Your task to perform on an android device: turn on priority inbox in the gmail app Image 0: 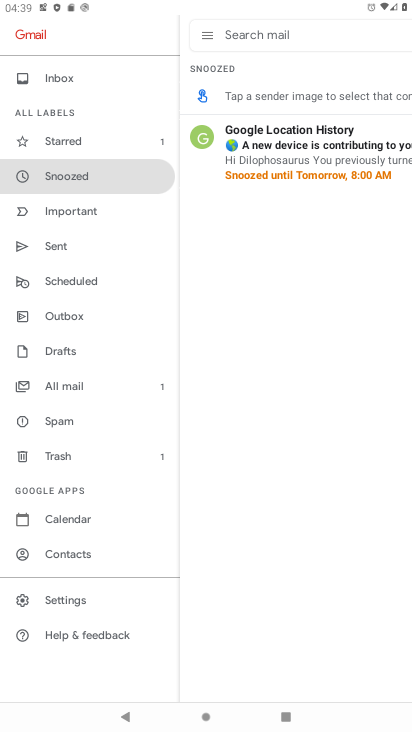
Step 0: click (64, 591)
Your task to perform on an android device: turn on priority inbox in the gmail app Image 1: 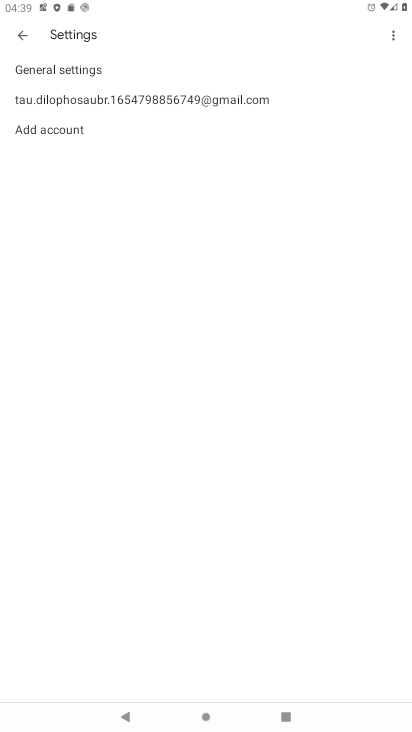
Step 1: click (63, 99)
Your task to perform on an android device: turn on priority inbox in the gmail app Image 2: 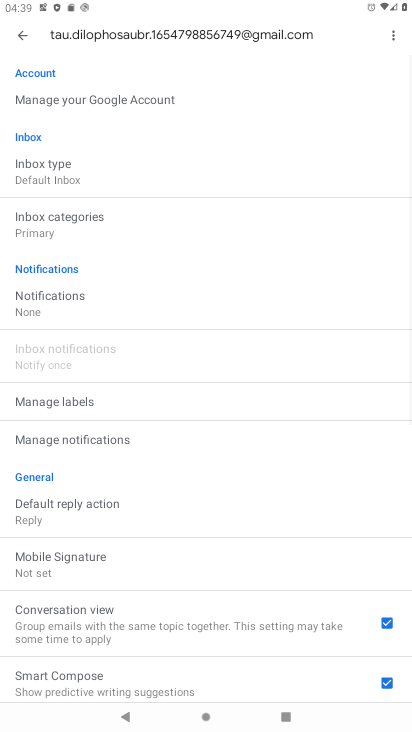
Step 2: click (42, 168)
Your task to perform on an android device: turn on priority inbox in the gmail app Image 3: 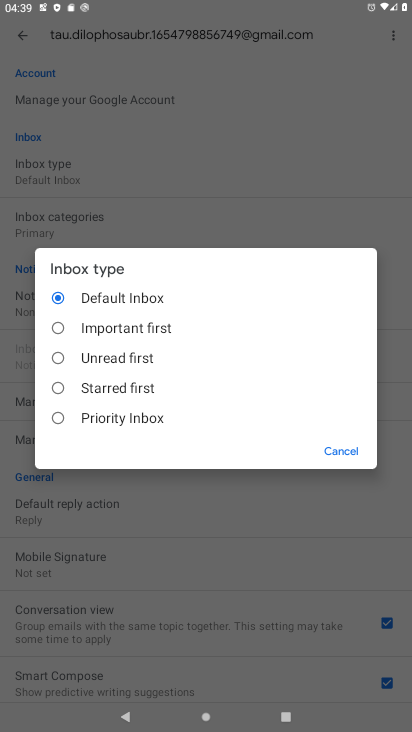
Step 3: click (104, 415)
Your task to perform on an android device: turn on priority inbox in the gmail app Image 4: 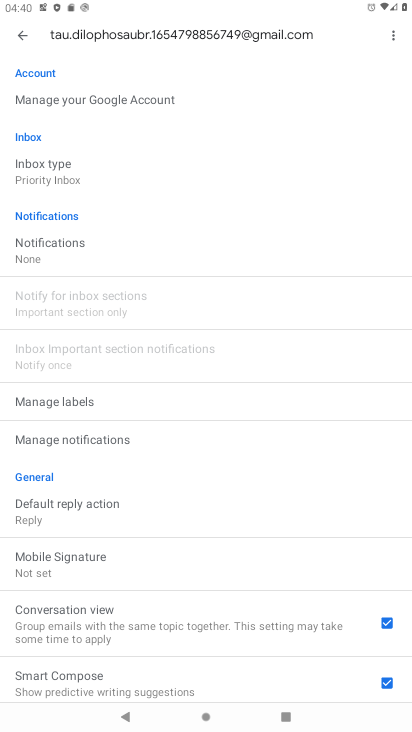
Step 4: task complete